Your task to perform on an android device: open app "Venmo" (install if not already installed) Image 0: 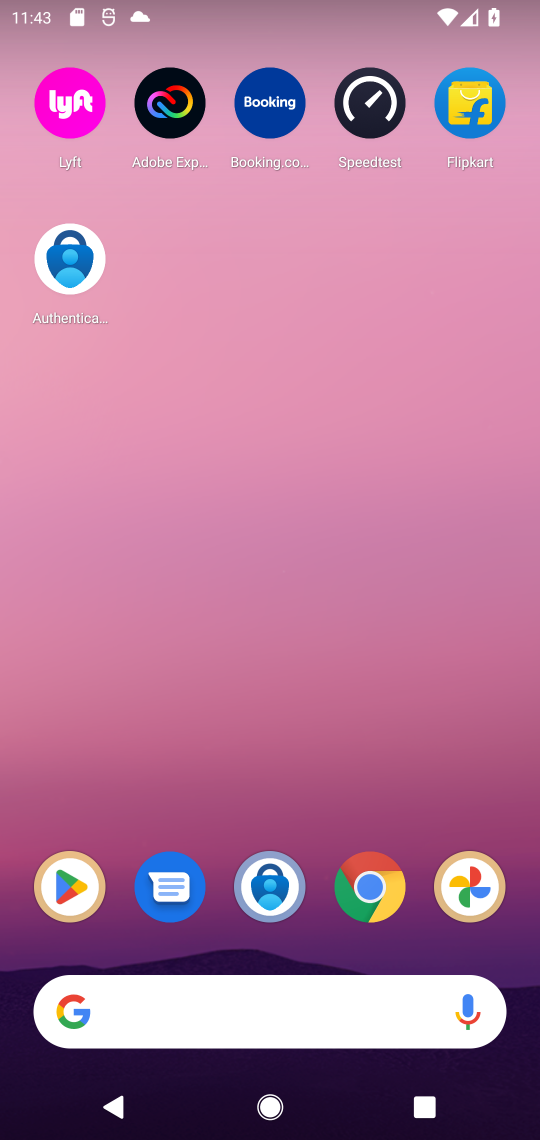
Step 0: drag from (269, 1027) to (282, 169)
Your task to perform on an android device: open app "Venmo" (install if not already installed) Image 1: 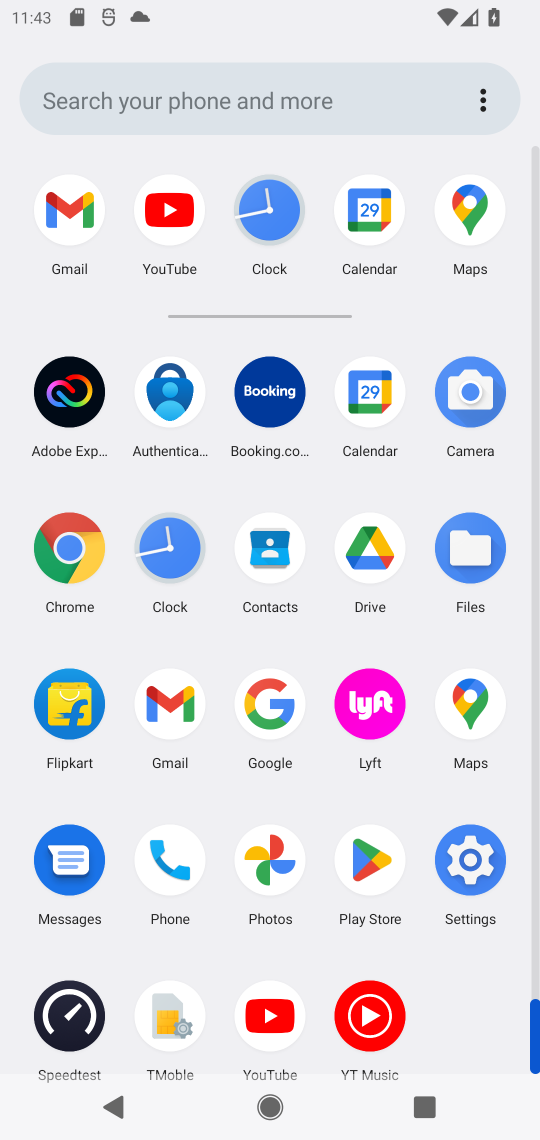
Step 1: click (368, 868)
Your task to perform on an android device: open app "Venmo" (install if not already installed) Image 2: 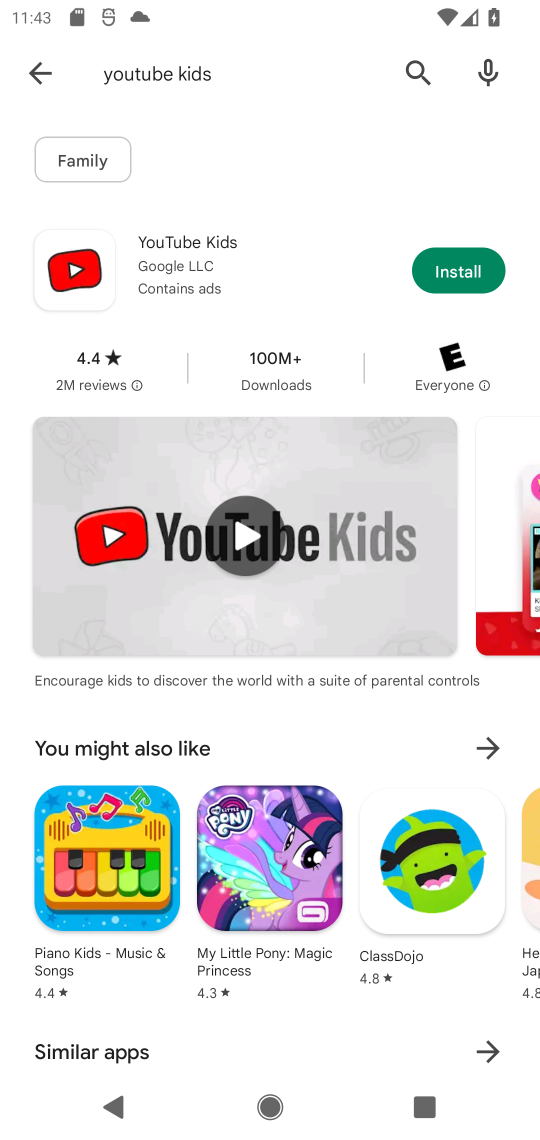
Step 2: click (410, 65)
Your task to perform on an android device: open app "Venmo" (install if not already installed) Image 3: 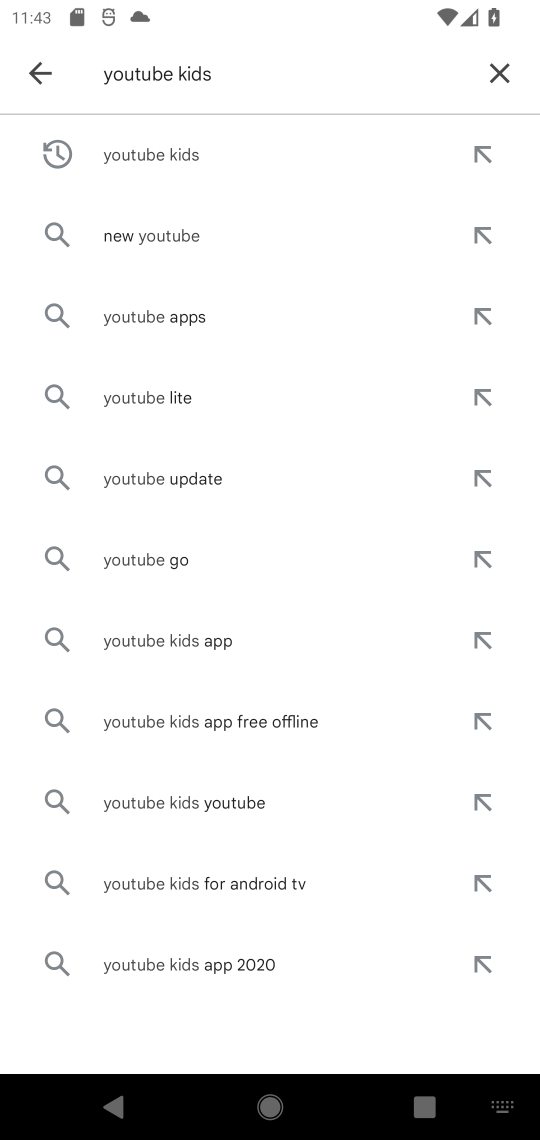
Step 3: click (494, 68)
Your task to perform on an android device: open app "Venmo" (install if not already installed) Image 4: 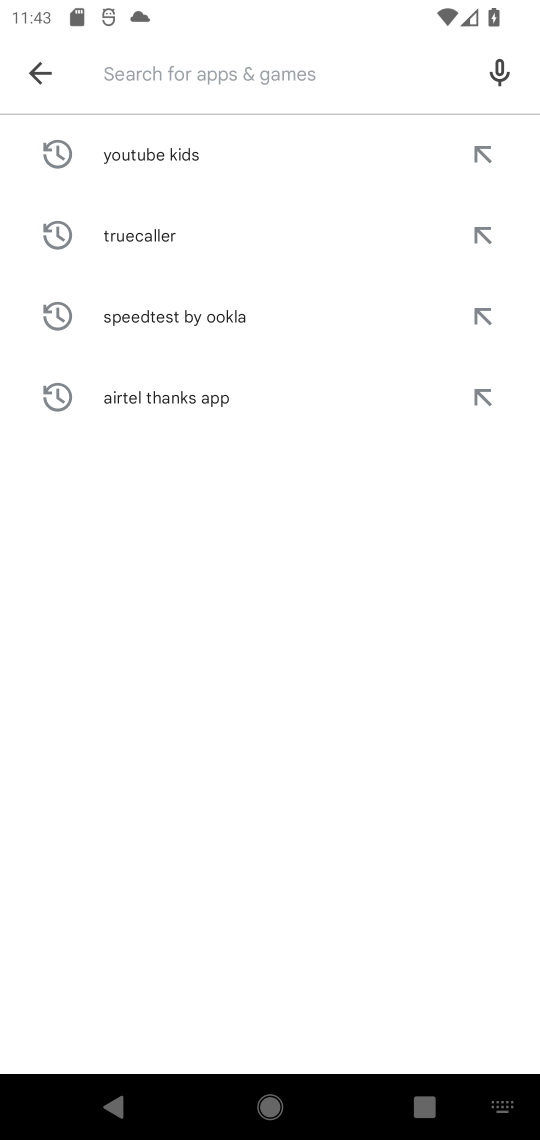
Step 4: type "Venmo"
Your task to perform on an android device: open app "Venmo" (install if not already installed) Image 5: 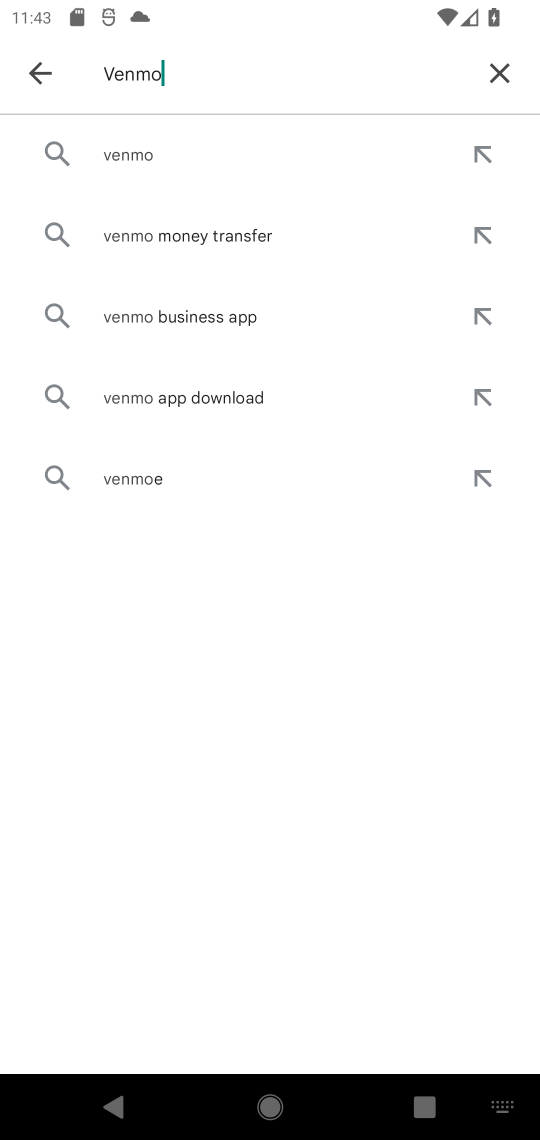
Step 5: click (139, 157)
Your task to perform on an android device: open app "Venmo" (install if not already installed) Image 6: 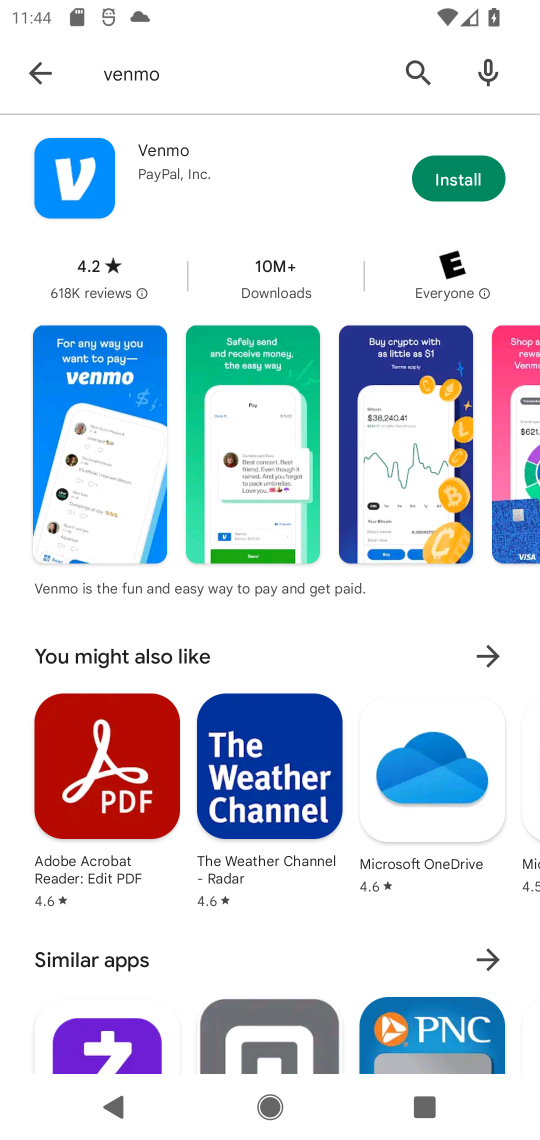
Step 6: click (465, 173)
Your task to perform on an android device: open app "Venmo" (install if not already installed) Image 7: 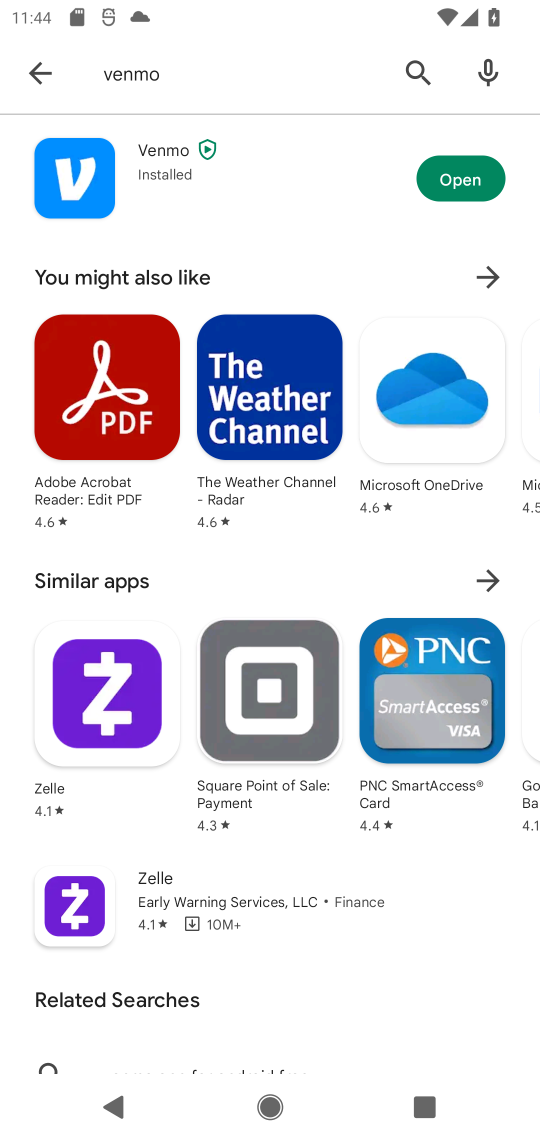
Step 7: click (476, 181)
Your task to perform on an android device: open app "Venmo" (install if not already installed) Image 8: 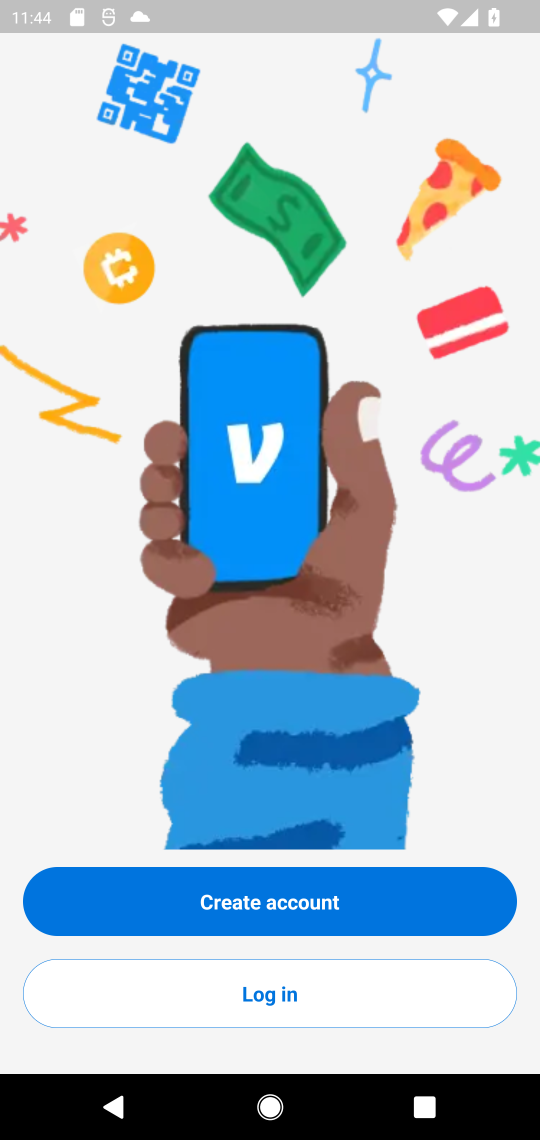
Step 8: task complete